Your task to perform on an android device: Open the calendar and show me this week's events Image 0: 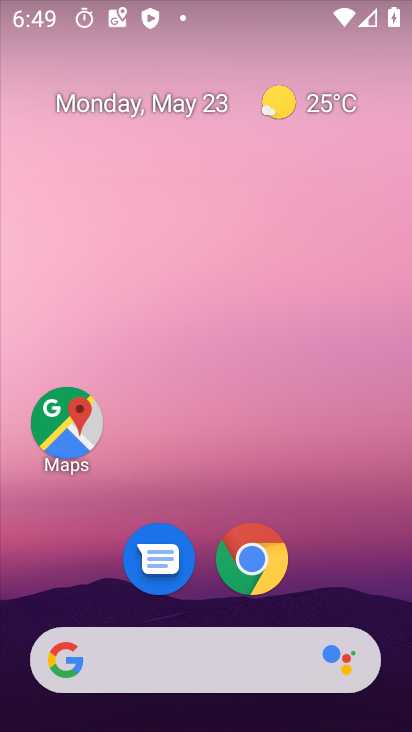
Step 0: click (357, 3)
Your task to perform on an android device: Open the calendar and show me this week's events Image 1: 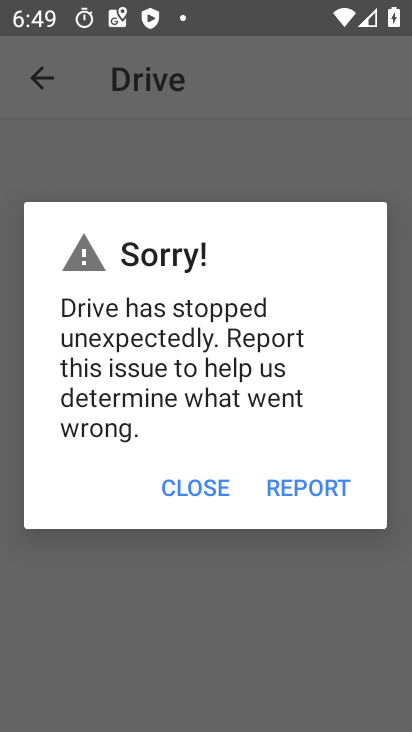
Step 1: press home button
Your task to perform on an android device: Open the calendar and show me this week's events Image 2: 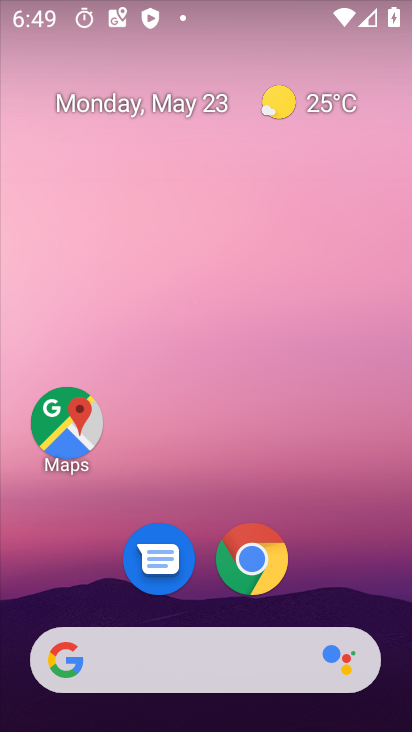
Step 2: drag from (391, 625) to (248, 7)
Your task to perform on an android device: Open the calendar and show me this week's events Image 3: 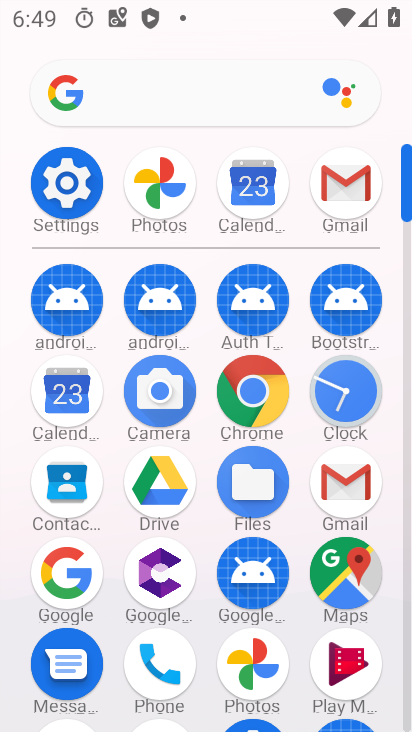
Step 3: click (57, 383)
Your task to perform on an android device: Open the calendar and show me this week's events Image 4: 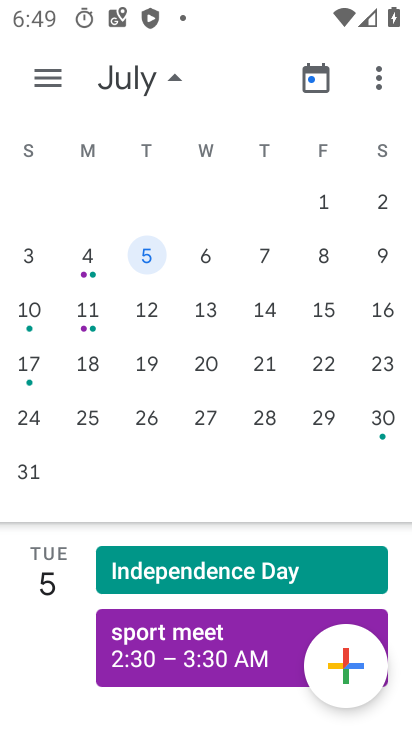
Step 4: click (52, 74)
Your task to perform on an android device: Open the calendar and show me this week's events Image 5: 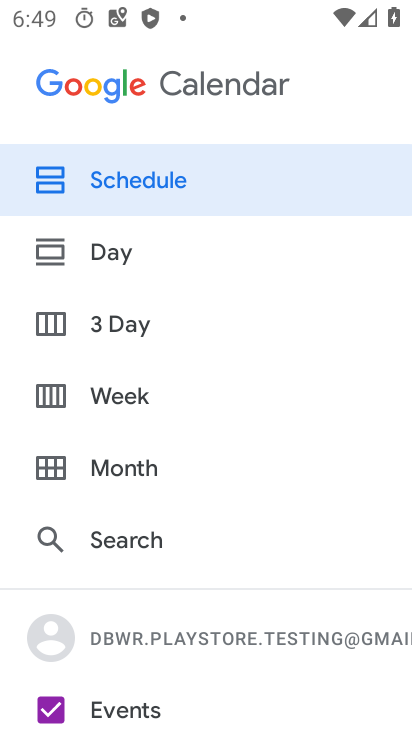
Step 5: click (145, 706)
Your task to perform on an android device: Open the calendar and show me this week's events Image 6: 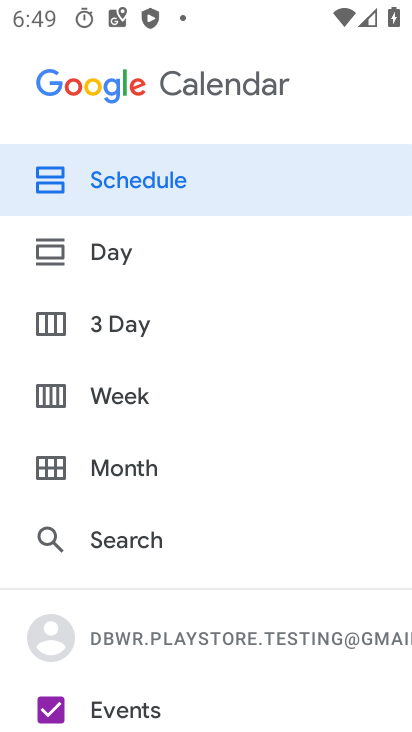
Step 6: click (145, 706)
Your task to perform on an android device: Open the calendar and show me this week's events Image 7: 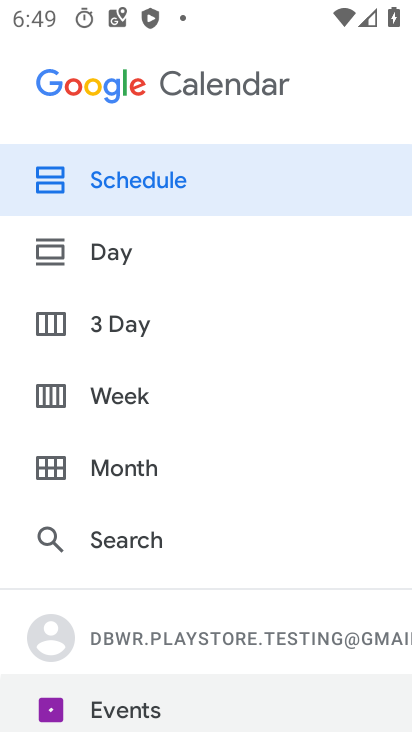
Step 7: drag from (145, 706) to (173, 390)
Your task to perform on an android device: Open the calendar and show me this week's events Image 8: 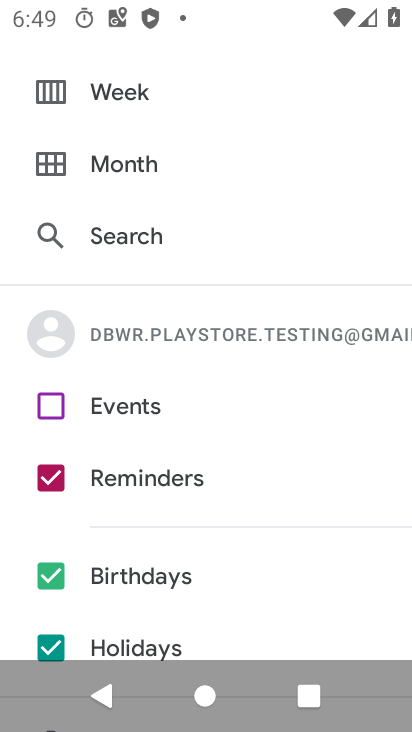
Step 8: click (103, 386)
Your task to perform on an android device: Open the calendar and show me this week's events Image 9: 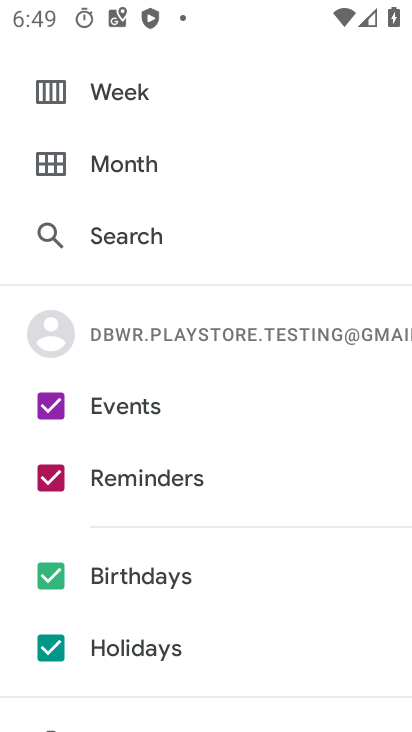
Step 9: task complete